Your task to perform on an android device: What's the weather going to be this weekend? Image 0: 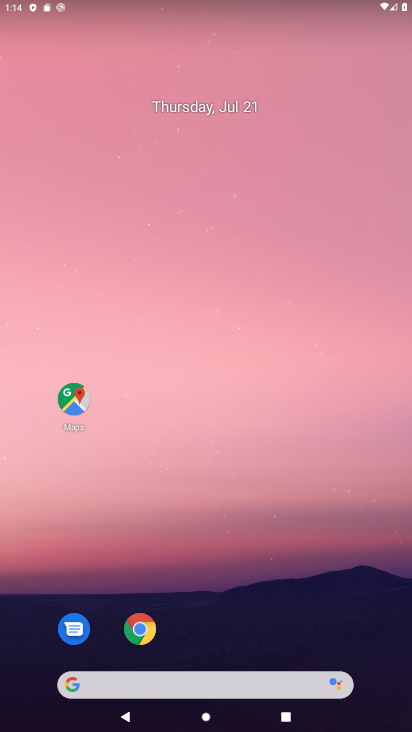
Step 0: click (96, 690)
Your task to perform on an android device: What's the weather going to be this weekend? Image 1: 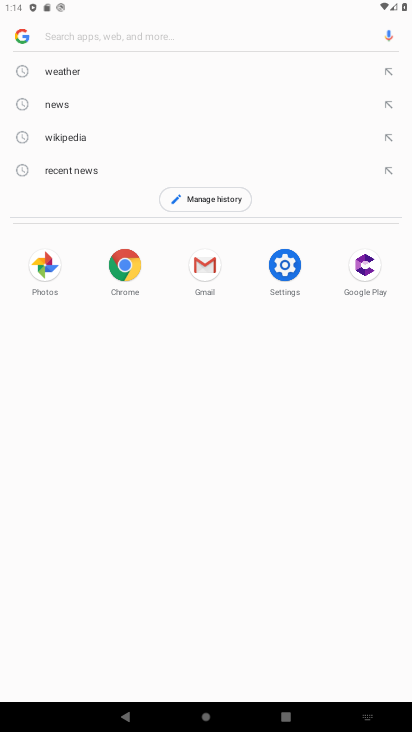
Step 1: type "What's the weather going to be this weekend?"
Your task to perform on an android device: What's the weather going to be this weekend? Image 2: 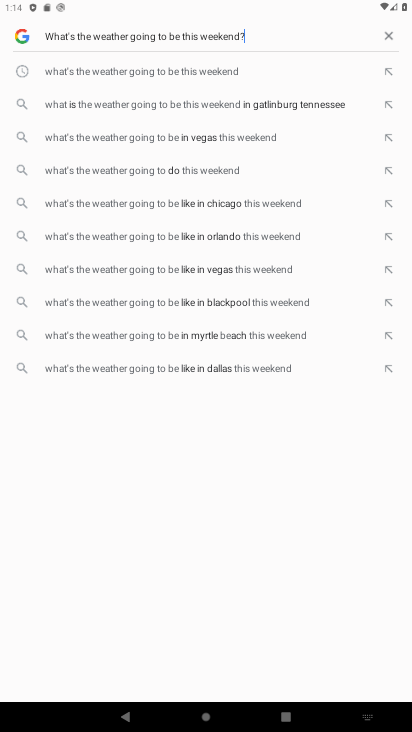
Step 2: type ""
Your task to perform on an android device: What's the weather going to be this weekend? Image 3: 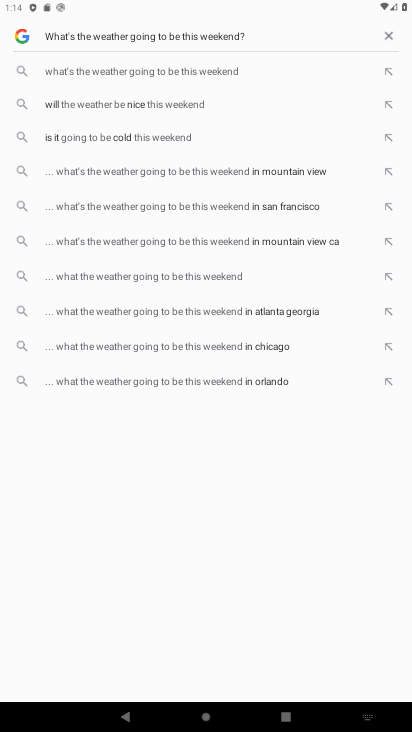
Step 3: click (181, 73)
Your task to perform on an android device: What's the weather going to be this weekend? Image 4: 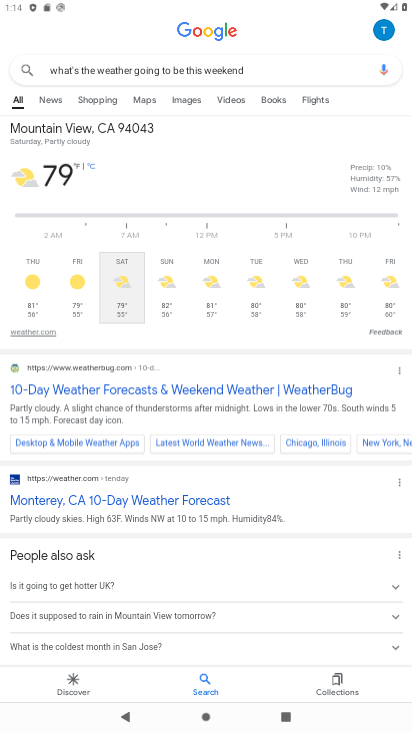
Step 4: task complete